Your task to perform on an android device: turn off airplane mode Image 0: 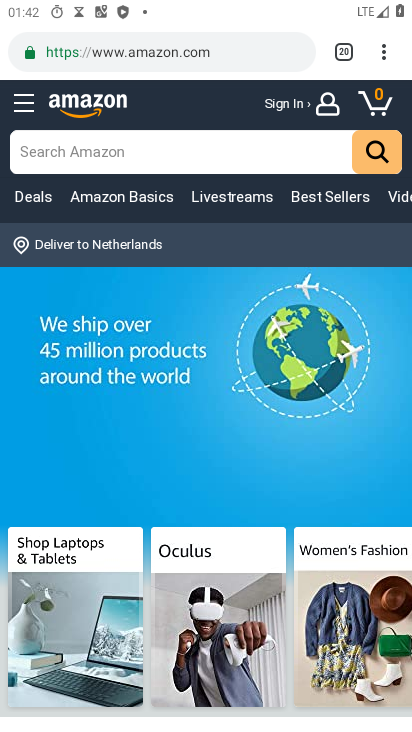
Step 0: press home button
Your task to perform on an android device: turn off airplane mode Image 1: 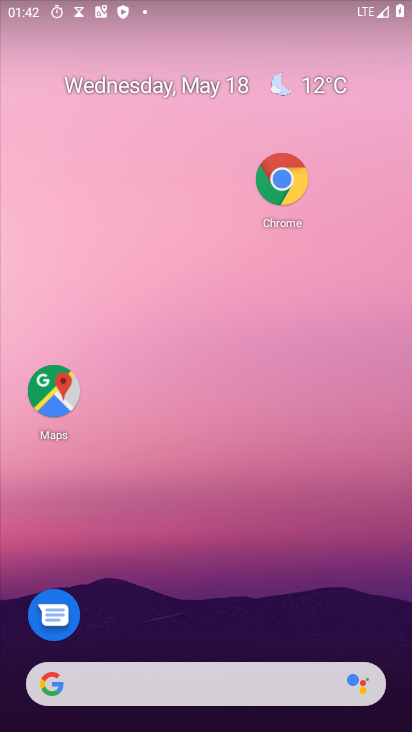
Step 1: drag from (156, 686) to (304, 107)
Your task to perform on an android device: turn off airplane mode Image 2: 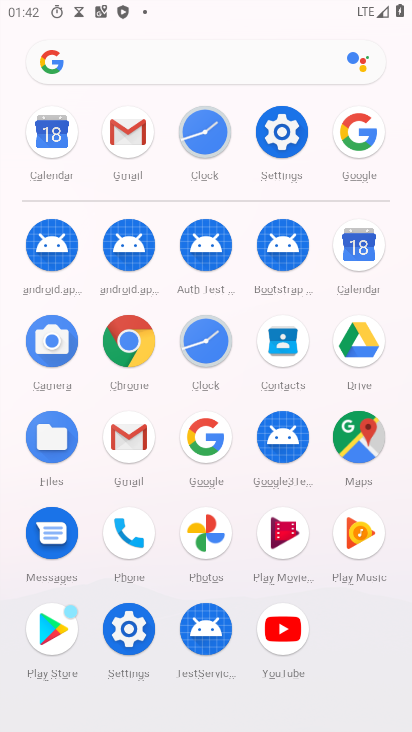
Step 2: click (284, 143)
Your task to perform on an android device: turn off airplane mode Image 3: 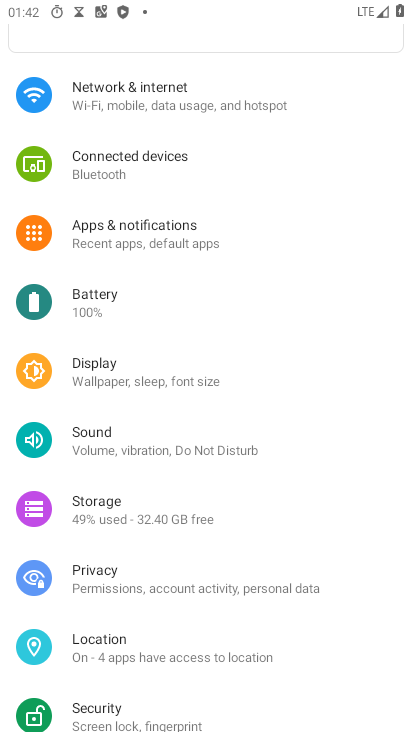
Step 3: drag from (321, 200) to (266, 612)
Your task to perform on an android device: turn off airplane mode Image 4: 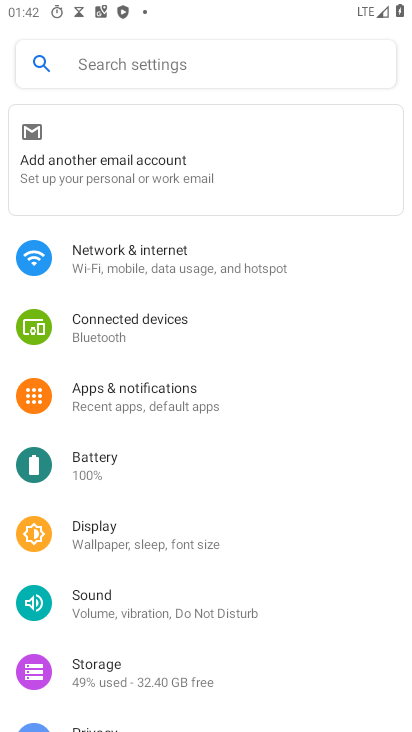
Step 4: click (181, 261)
Your task to perform on an android device: turn off airplane mode Image 5: 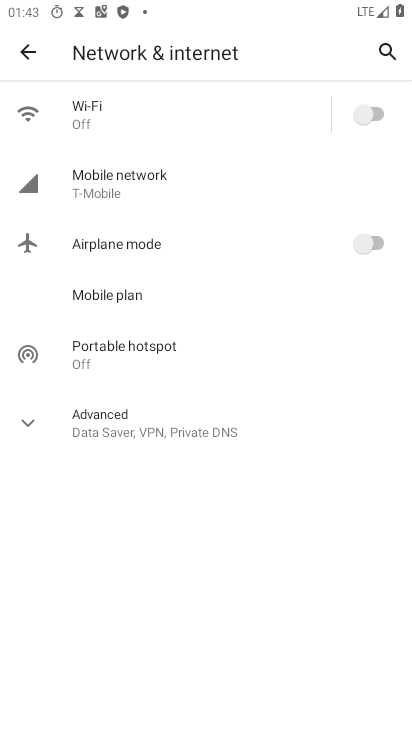
Step 5: task complete